Your task to perform on an android device: open the mobile data screen to see how much data has been used Image 0: 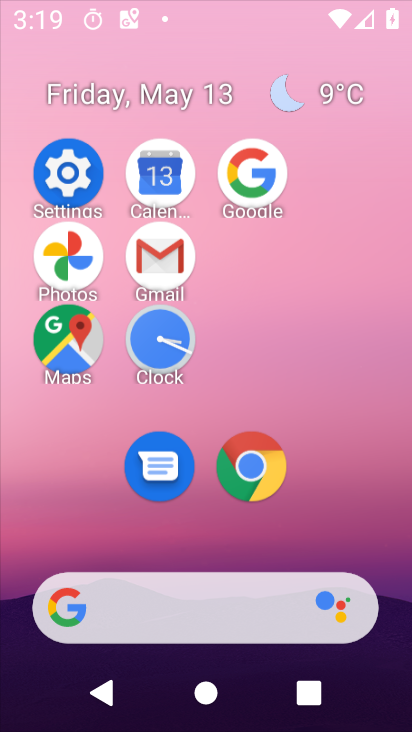
Step 0: click (257, 484)
Your task to perform on an android device: open the mobile data screen to see how much data has been used Image 1: 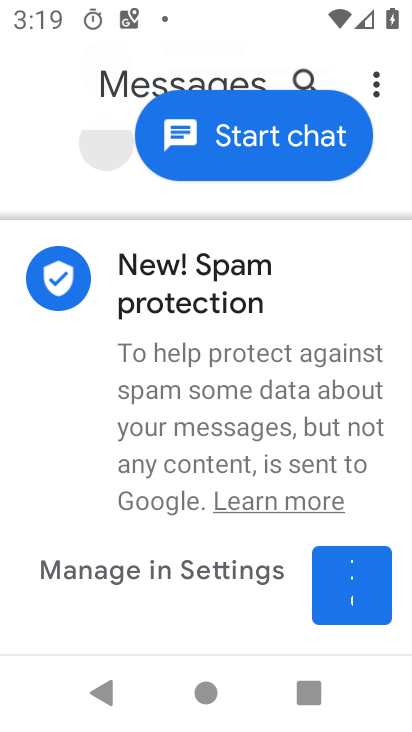
Step 1: press back button
Your task to perform on an android device: open the mobile data screen to see how much data has been used Image 2: 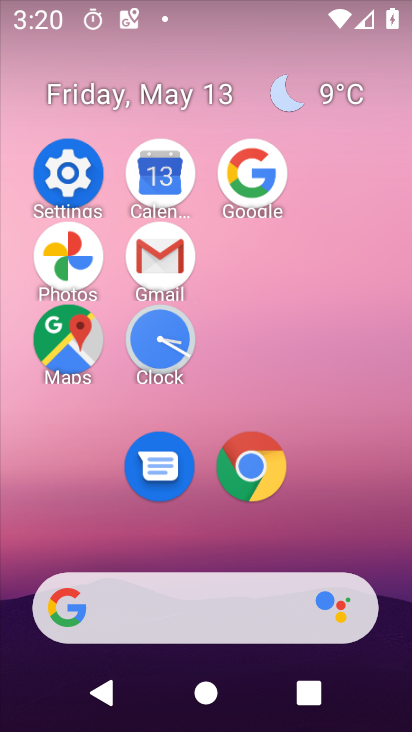
Step 2: click (51, 175)
Your task to perform on an android device: open the mobile data screen to see how much data has been used Image 3: 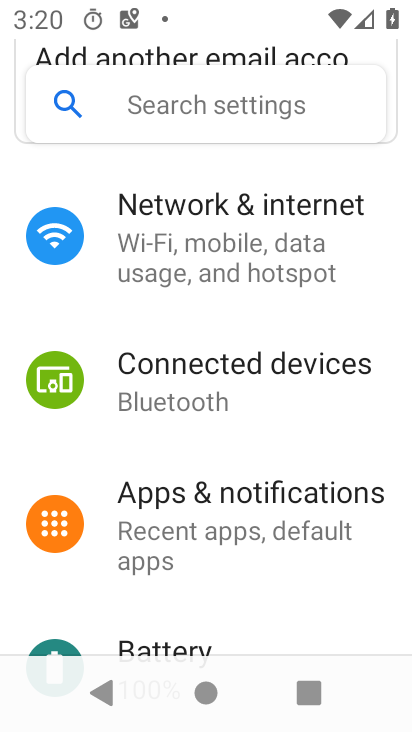
Step 3: click (203, 241)
Your task to perform on an android device: open the mobile data screen to see how much data has been used Image 4: 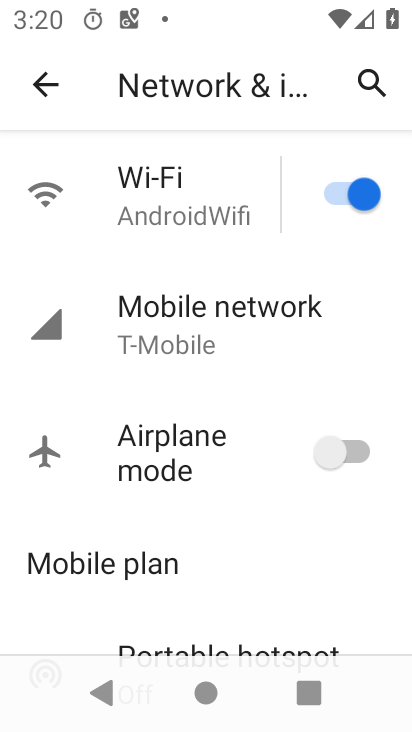
Step 4: click (183, 310)
Your task to perform on an android device: open the mobile data screen to see how much data has been used Image 5: 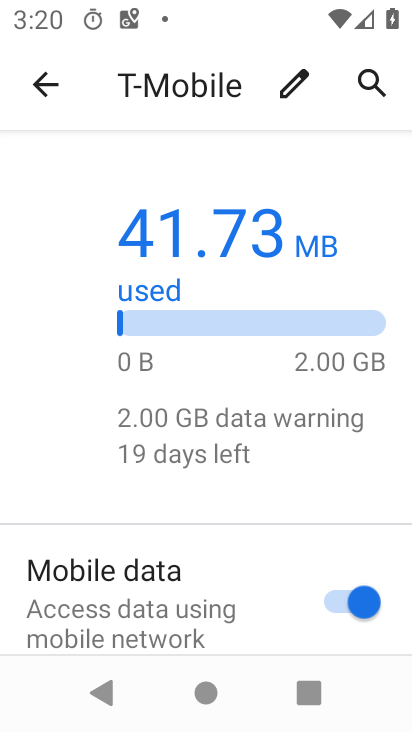
Step 5: task complete